Your task to perform on an android device: change your default location settings in chrome Image 0: 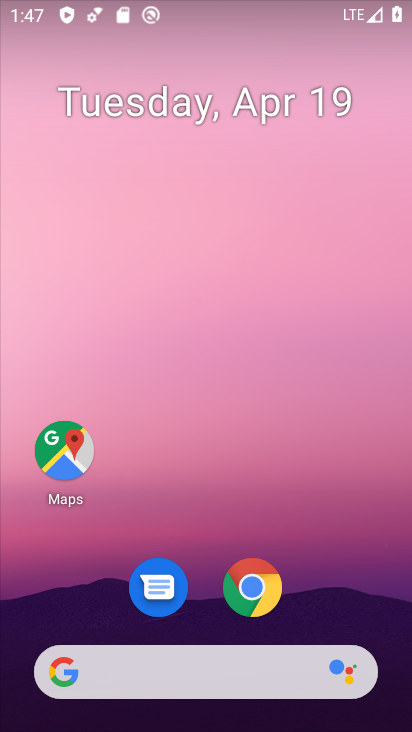
Step 0: click (264, 590)
Your task to perform on an android device: change your default location settings in chrome Image 1: 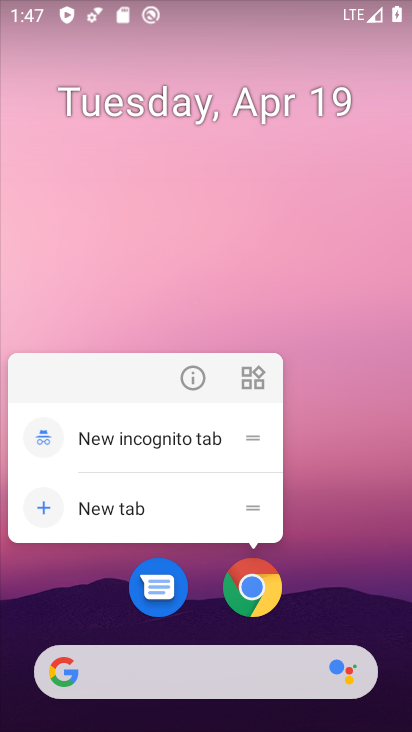
Step 1: click (250, 589)
Your task to perform on an android device: change your default location settings in chrome Image 2: 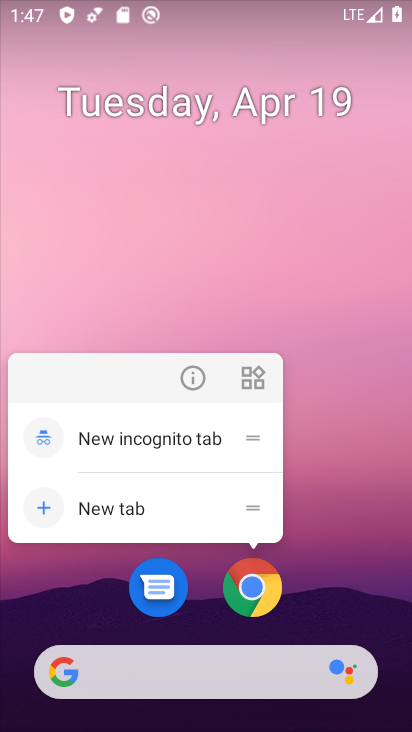
Step 2: click (301, 341)
Your task to perform on an android device: change your default location settings in chrome Image 3: 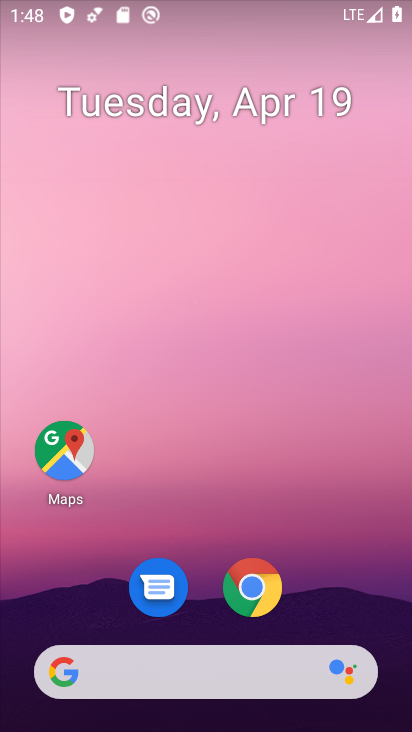
Step 3: drag from (355, 516) to (230, 3)
Your task to perform on an android device: change your default location settings in chrome Image 4: 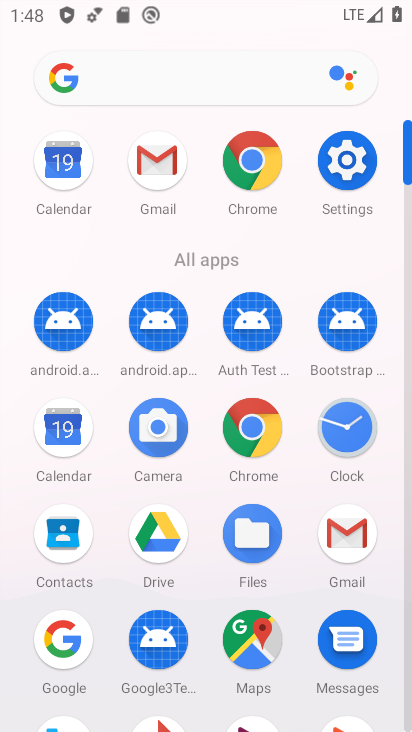
Step 4: click (243, 170)
Your task to perform on an android device: change your default location settings in chrome Image 5: 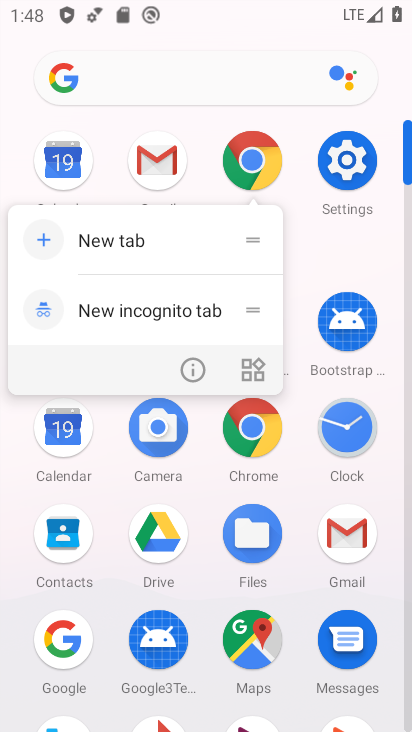
Step 5: click (254, 162)
Your task to perform on an android device: change your default location settings in chrome Image 6: 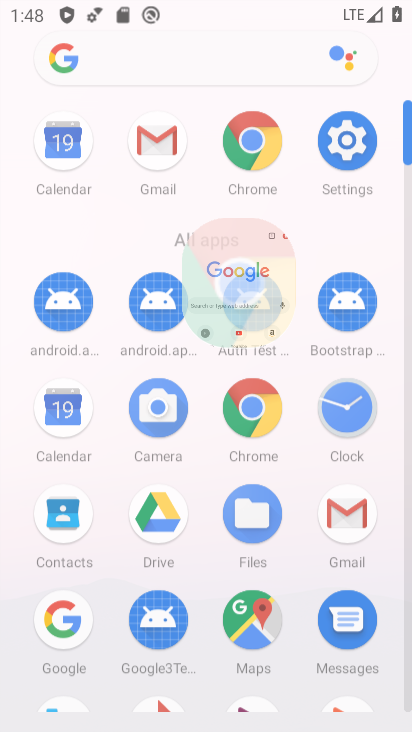
Step 6: click (254, 162)
Your task to perform on an android device: change your default location settings in chrome Image 7: 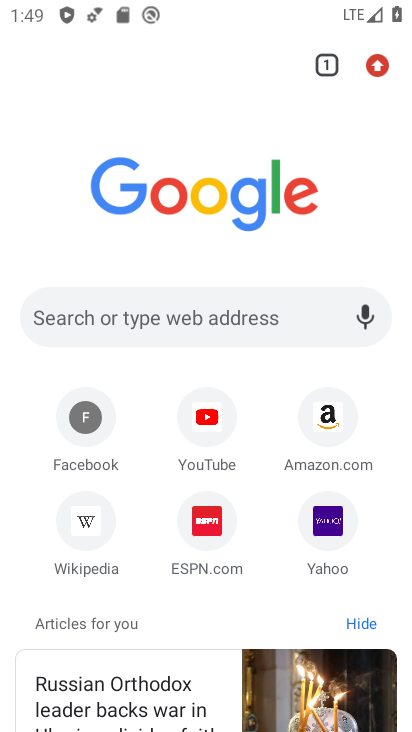
Step 7: click (377, 70)
Your task to perform on an android device: change your default location settings in chrome Image 8: 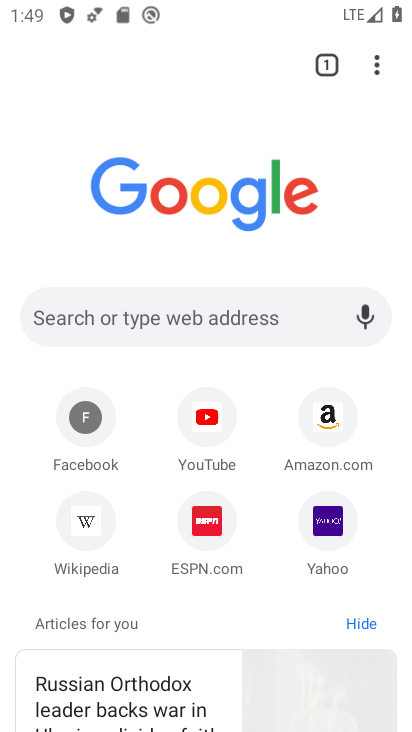
Step 8: click (377, 70)
Your task to perform on an android device: change your default location settings in chrome Image 9: 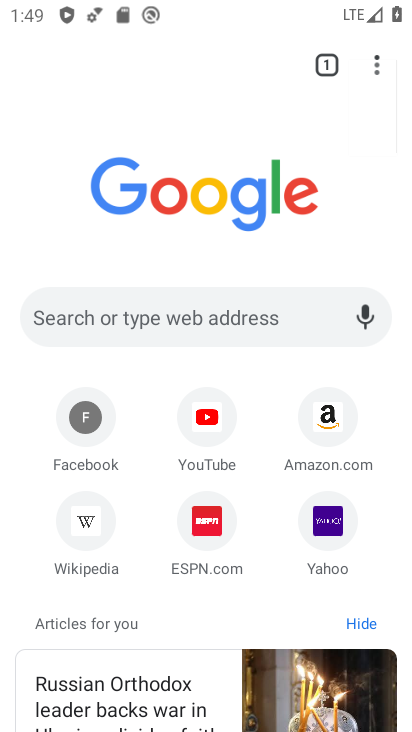
Step 9: click (377, 70)
Your task to perform on an android device: change your default location settings in chrome Image 10: 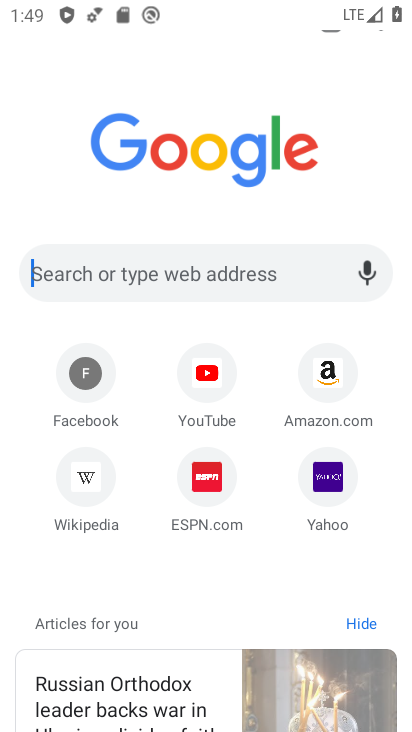
Step 10: click (377, 70)
Your task to perform on an android device: change your default location settings in chrome Image 11: 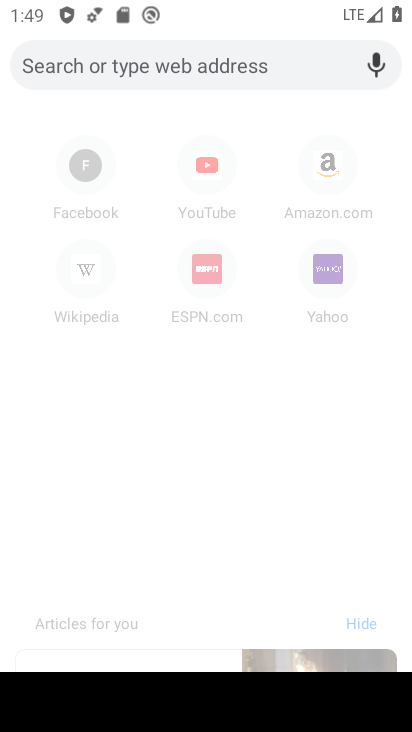
Step 11: click (377, 70)
Your task to perform on an android device: change your default location settings in chrome Image 12: 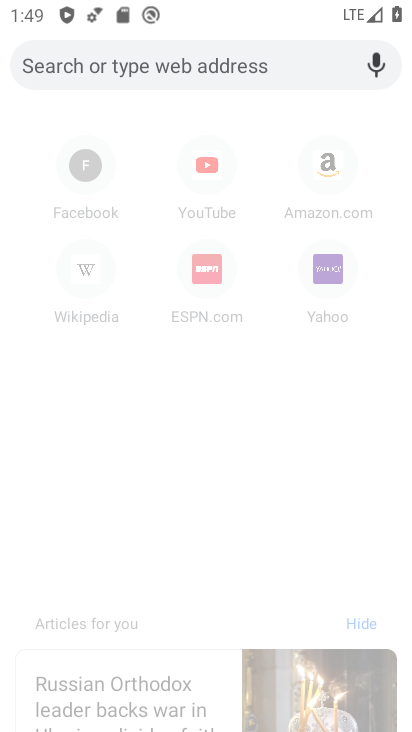
Step 12: click (377, 70)
Your task to perform on an android device: change your default location settings in chrome Image 13: 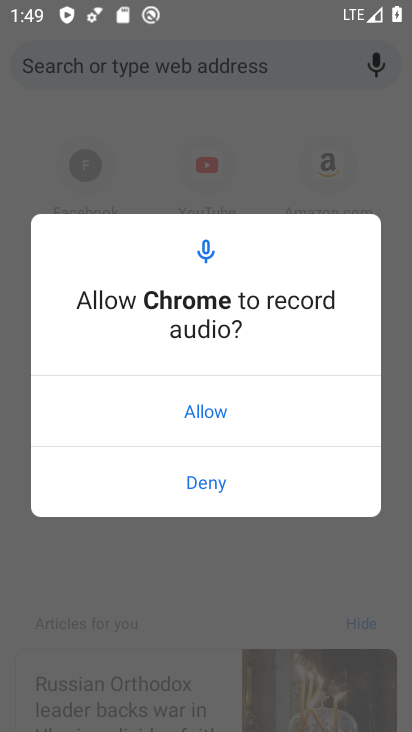
Step 13: click (204, 412)
Your task to perform on an android device: change your default location settings in chrome Image 14: 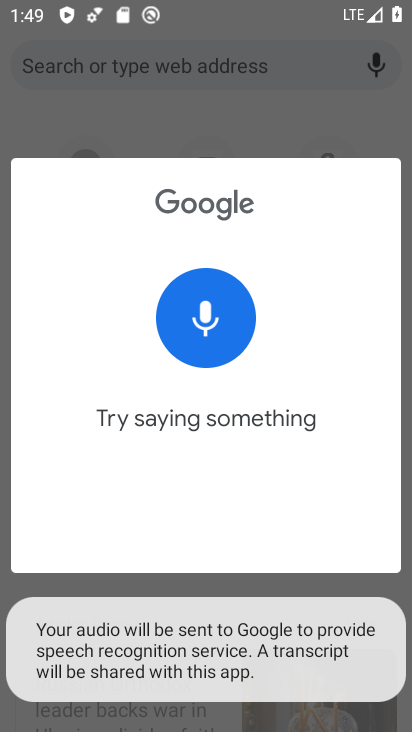
Step 14: click (203, 339)
Your task to perform on an android device: change your default location settings in chrome Image 15: 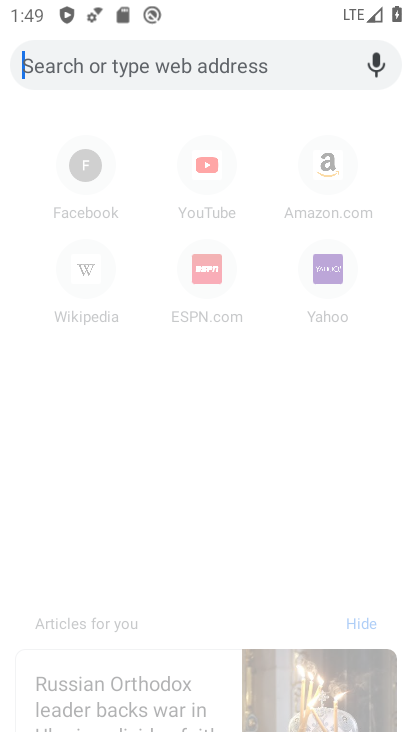
Step 15: click (273, 84)
Your task to perform on an android device: change your default location settings in chrome Image 16: 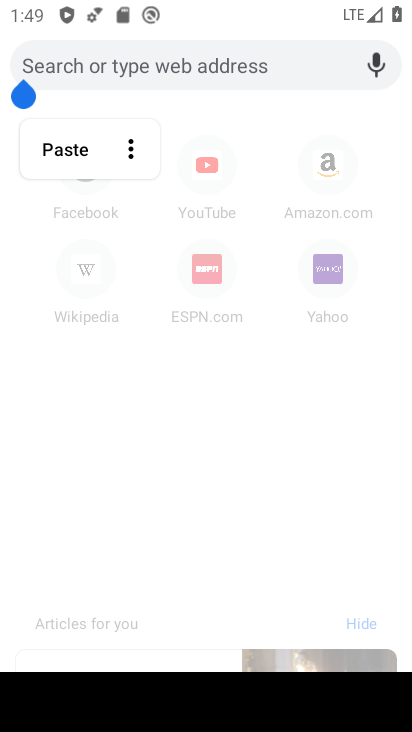
Step 16: click (55, 65)
Your task to perform on an android device: change your default location settings in chrome Image 17: 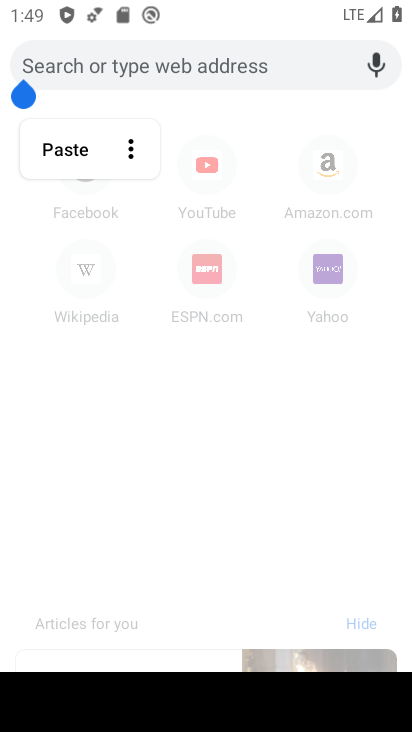
Step 17: click (55, 63)
Your task to perform on an android device: change your default location settings in chrome Image 18: 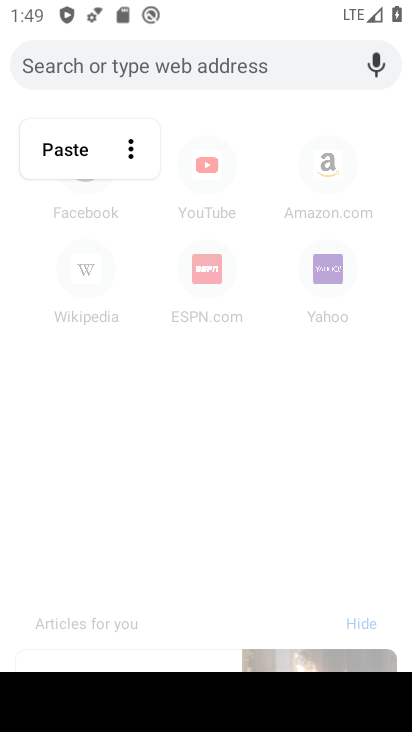
Step 18: click (50, 65)
Your task to perform on an android device: change your default location settings in chrome Image 19: 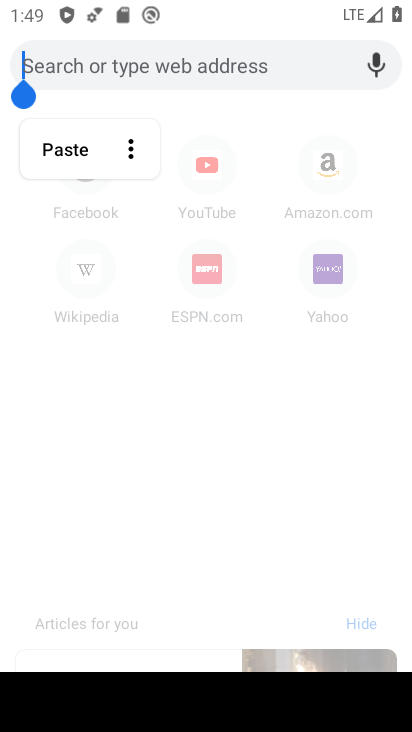
Step 19: click (50, 65)
Your task to perform on an android device: change your default location settings in chrome Image 20: 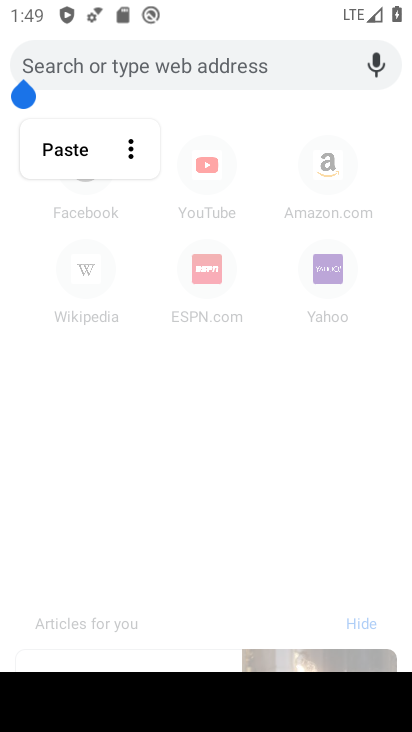
Step 20: click (50, 65)
Your task to perform on an android device: change your default location settings in chrome Image 21: 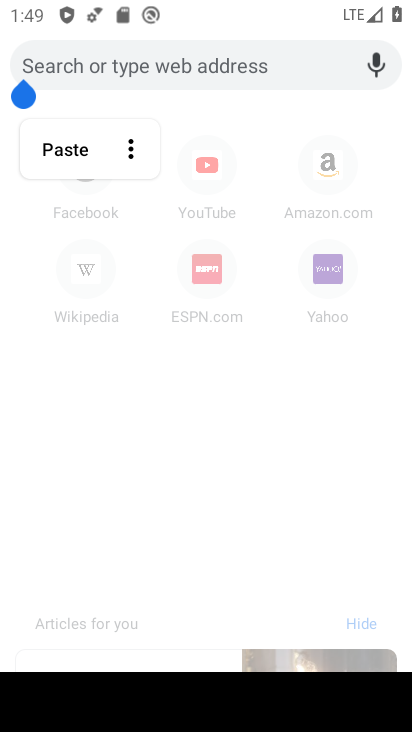
Step 21: click (56, 65)
Your task to perform on an android device: change your default location settings in chrome Image 22: 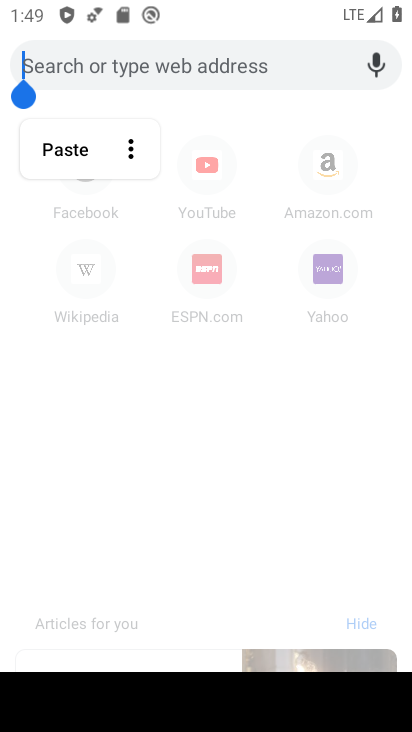
Step 22: click (34, 60)
Your task to perform on an android device: change your default location settings in chrome Image 23: 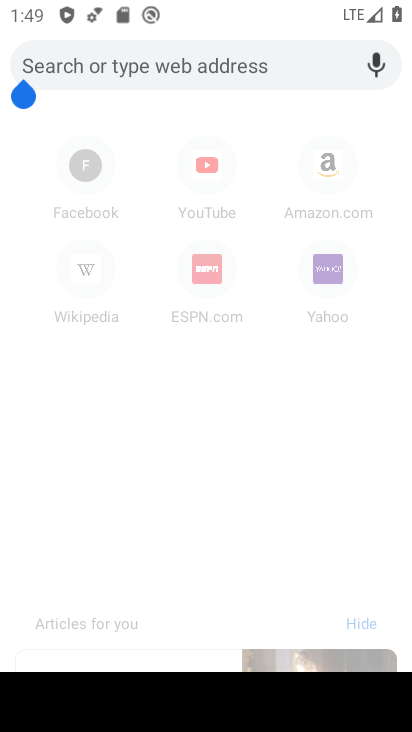
Step 23: click (41, 51)
Your task to perform on an android device: change your default location settings in chrome Image 24: 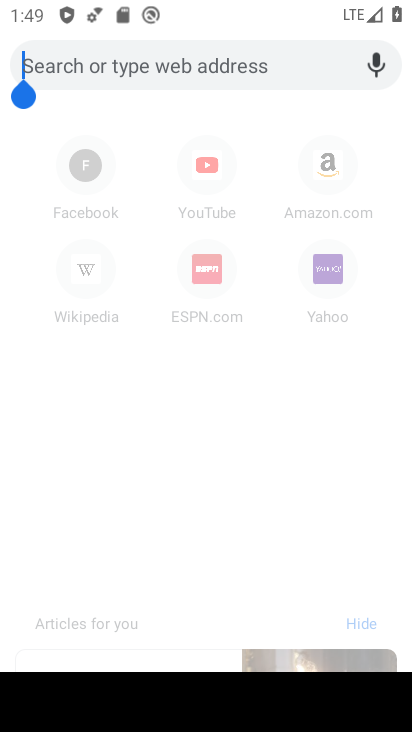
Step 24: click (39, 58)
Your task to perform on an android device: change your default location settings in chrome Image 25: 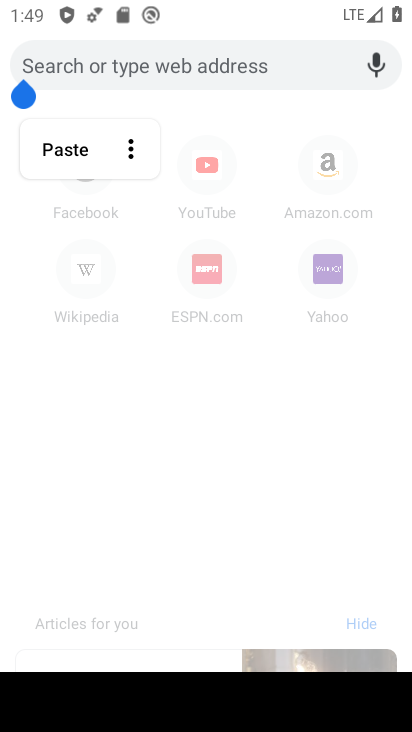
Step 25: click (45, 48)
Your task to perform on an android device: change your default location settings in chrome Image 26: 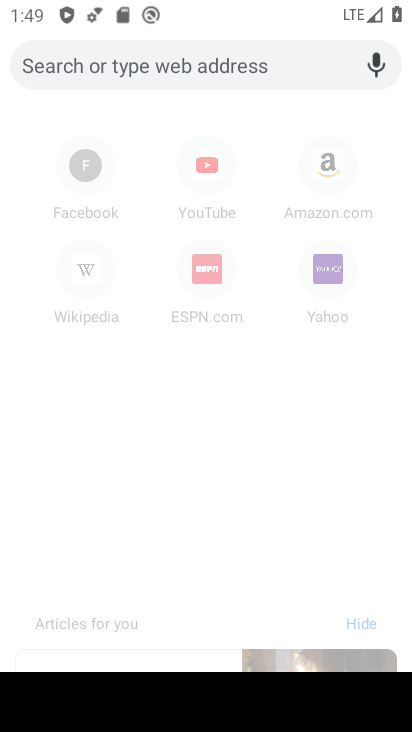
Step 26: click (45, 48)
Your task to perform on an android device: change your default location settings in chrome Image 27: 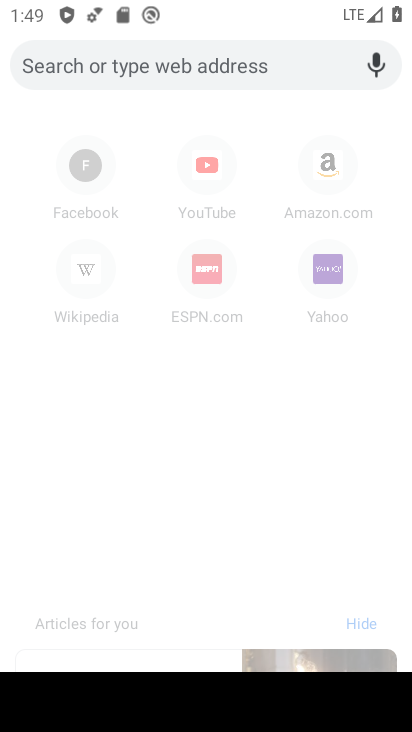
Step 27: click (61, 67)
Your task to perform on an android device: change your default location settings in chrome Image 28: 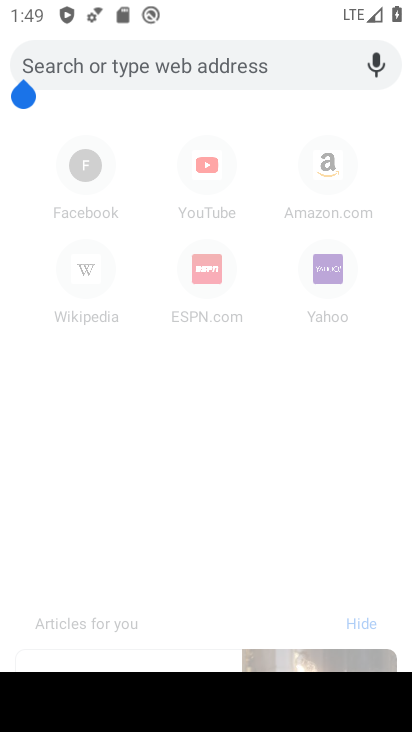
Step 28: click (61, 67)
Your task to perform on an android device: change your default location settings in chrome Image 29: 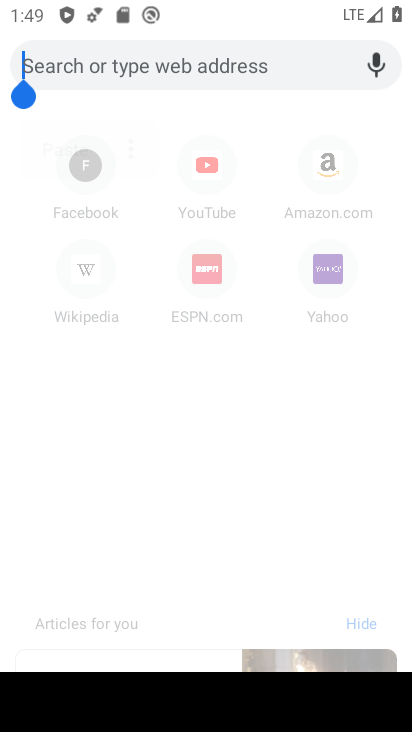
Step 29: click (61, 67)
Your task to perform on an android device: change your default location settings in chrome Image 30: 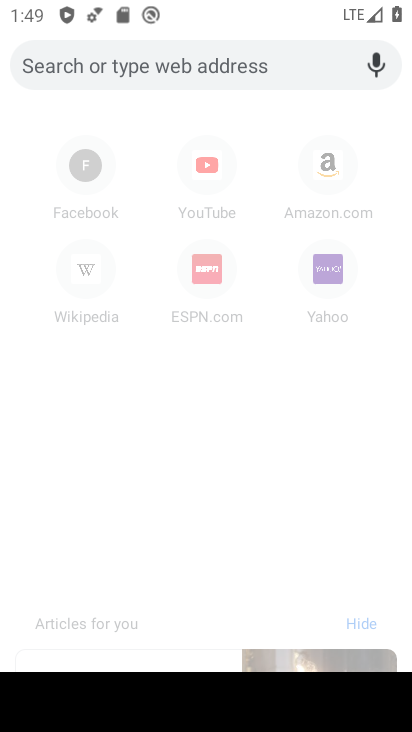
Step 30: click (61, 67)
Your task to perform on an android device: change your default location settings in chrome Image 31: 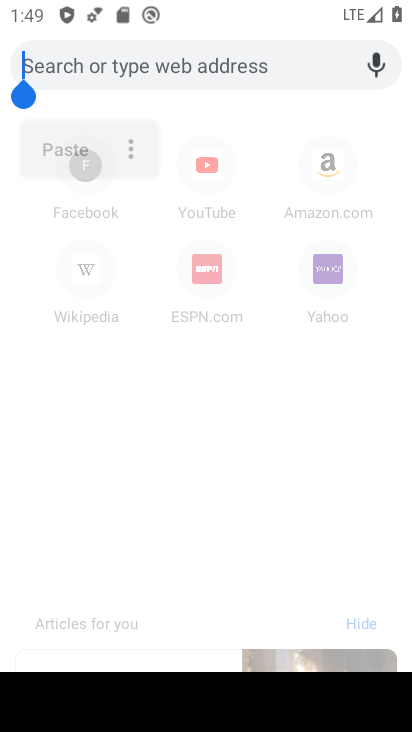
Step 31: click (61, 67)
Your task to perform on an android device: change your default location settings in chrome Image 32: 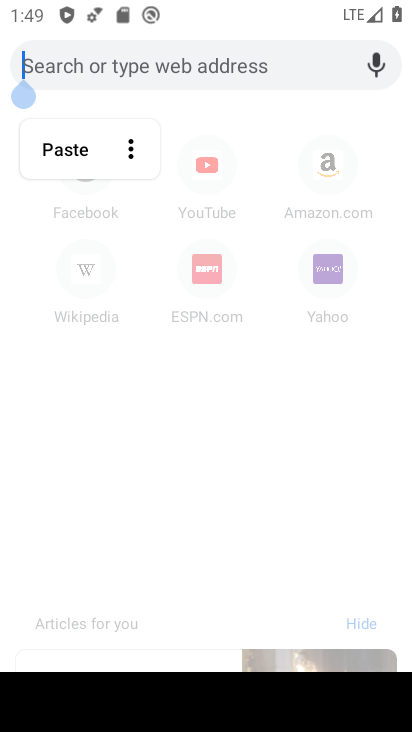
Step 32: click (61, 67)
Your task to perform on an android device: change your default location settings in chrome Image 33: 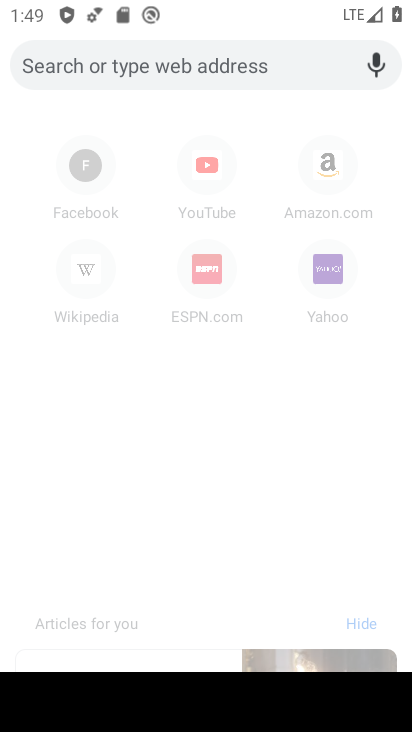
Step 33: click (61, 67)
Your task to perform on an android device: change your default location settings in chrome Image 34: 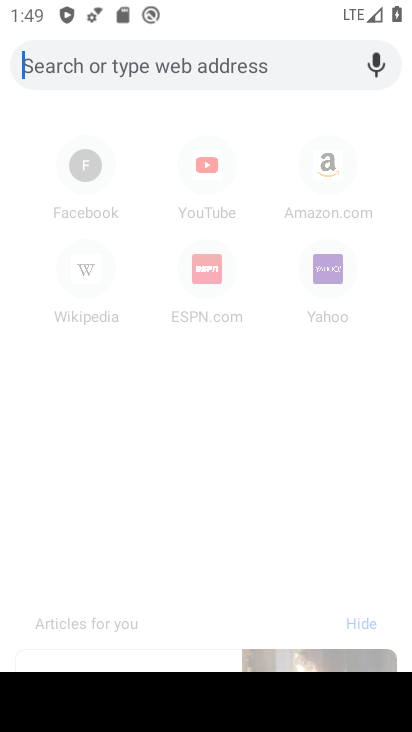
Step 34: click (61, 67)
Your task to perform on an android device: change your default location settings in chrome Image 35: 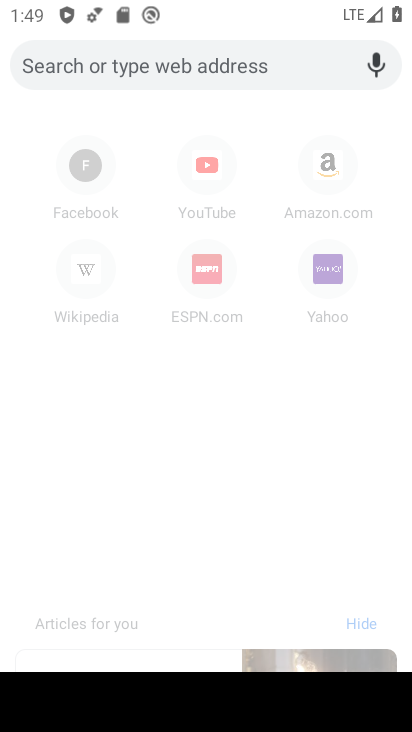
Step 35: click (61, 67)
Your task to perform on an android device: change your default location settings in chrome Image 36: 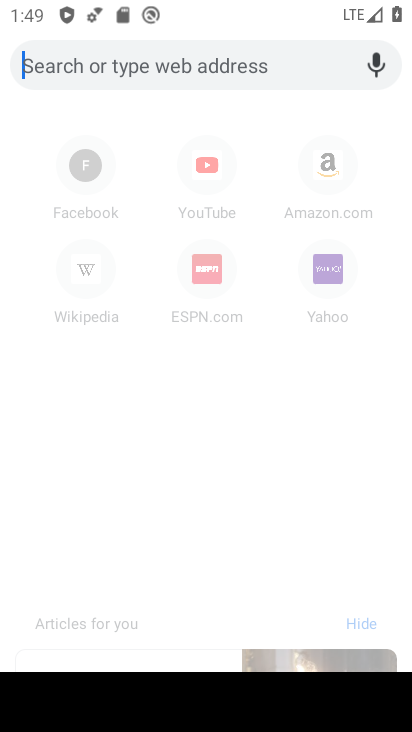
Step 36: click (61, 67)
Your task to perform on an android device: change your default location settings in chrome Image 37: 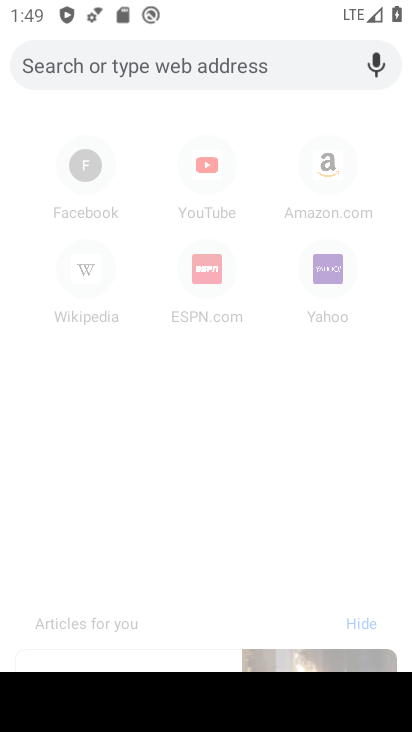
Step 37: click (62, 68)
Your task to perform on an android device: change your default location settings in chrome Image 38: 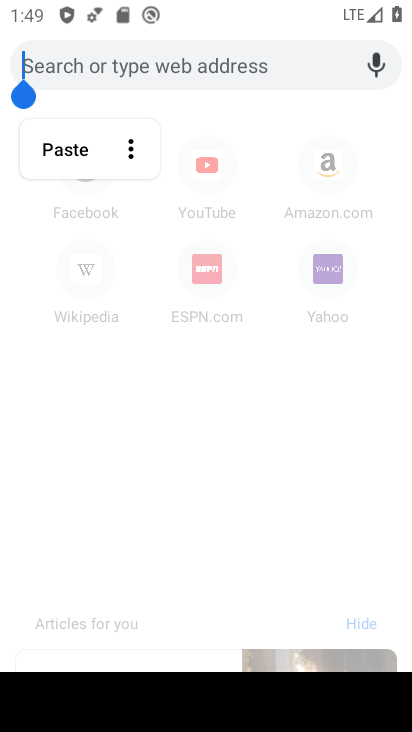
Step 38: click (62, 68)
Your task to perform on an android device: change your default location settings in chrome Image 39: 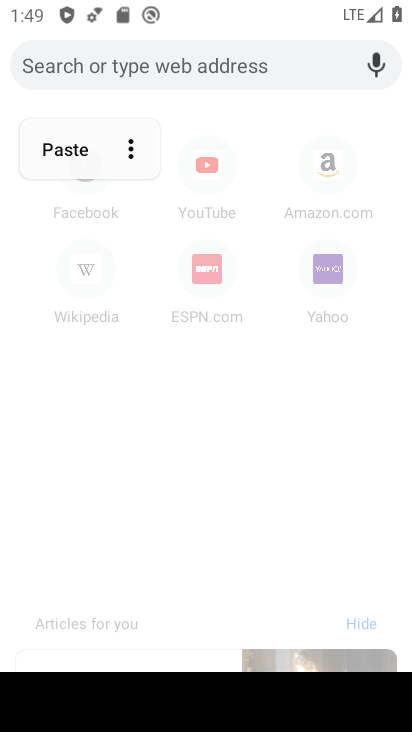
Step 39: click (62, 68)
Your task to perform on an android device: change your default location settings in chrome Image 40: 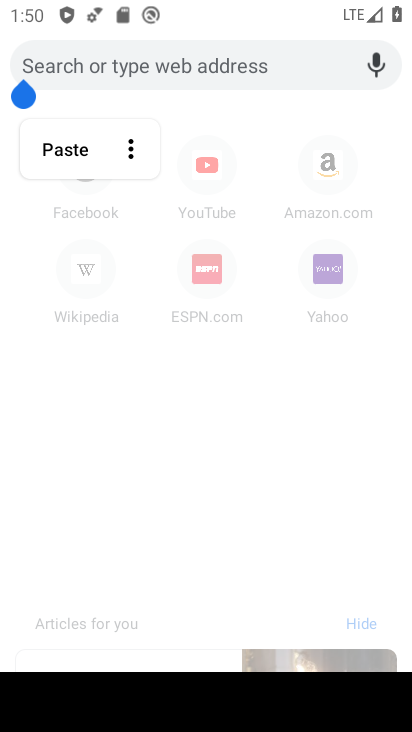
Step 40: click (56, 60)
Your task to perform on an android device: change your default location settings in chrome Image 41: 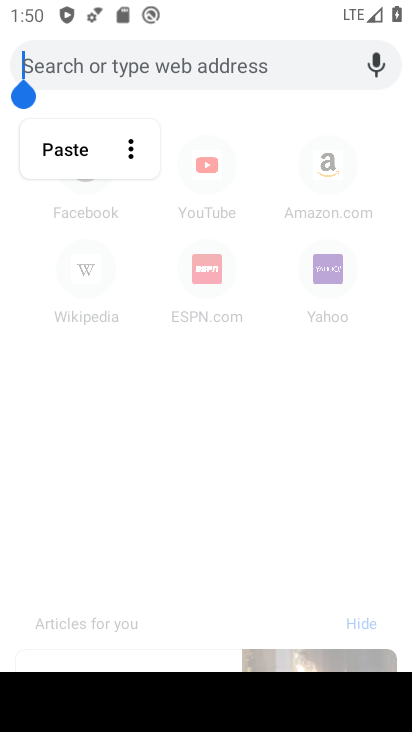
Step 41: click (49, 67)
Your task to perform on an android device: change your default location settings in chrome Image 42: 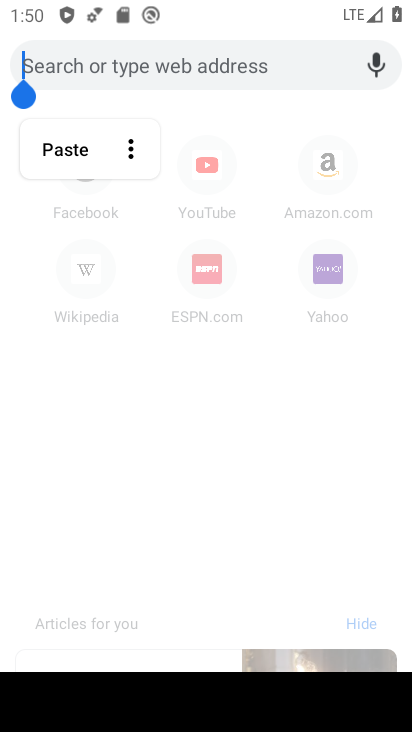
Step 42: click (49, 67)
Your task to perform on an android device: change your default location settings in chrome Image 43: 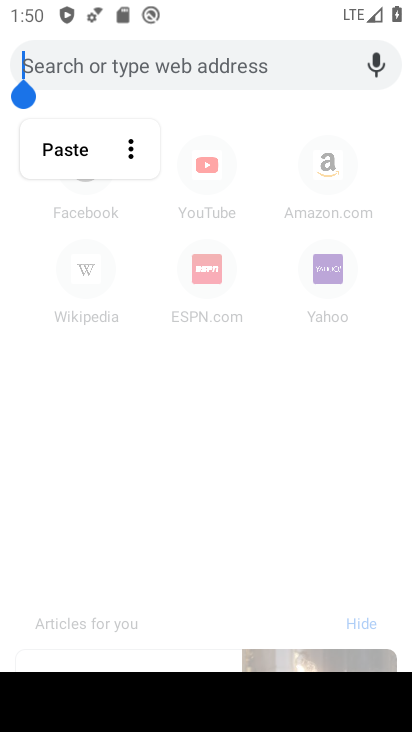
Step 43: click (313, 75)
Your task to perform on an android device: change your default location settings in chrome Image 44: 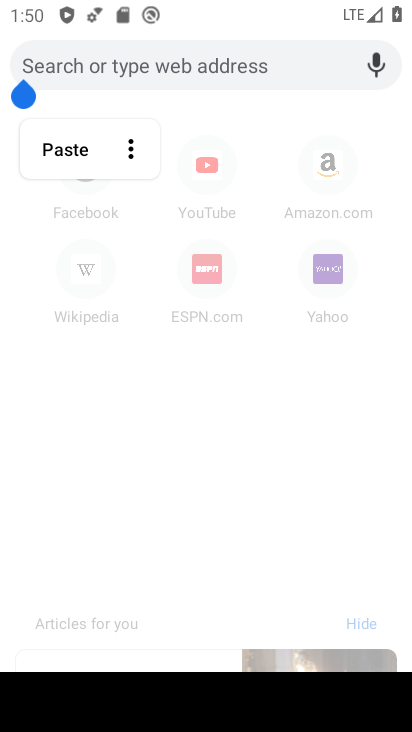
Step 44: click (313, 65)
Your task to perform on an android device: change your default location settings in chrome Image 45: 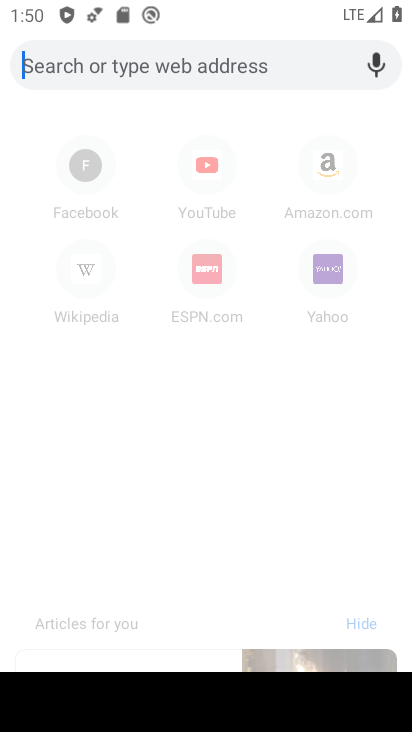
Step 45: press home button
Your task to perform on an android device: change your default location settings in chrome Image 46: 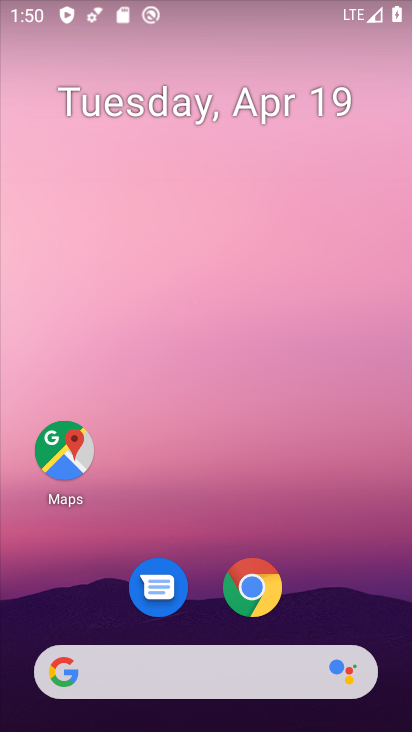
Step 46: click (166, 138)
Your task to perform on an android device: change your default location settings in chrome Image 47: 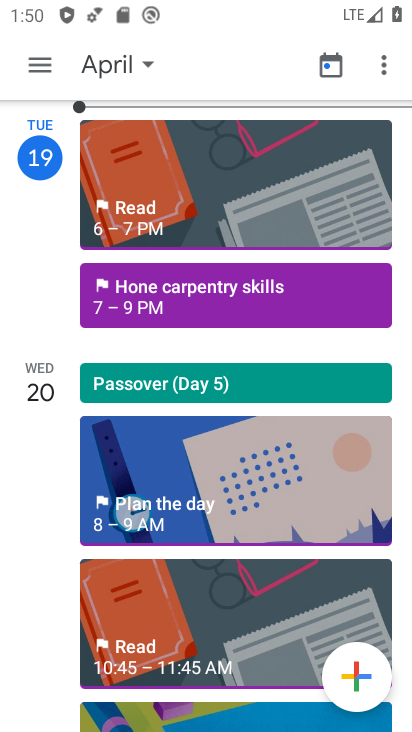
Step 47: click (385, 65)
Your task to perform on an android device: change your default location settings in chrome Image 48: 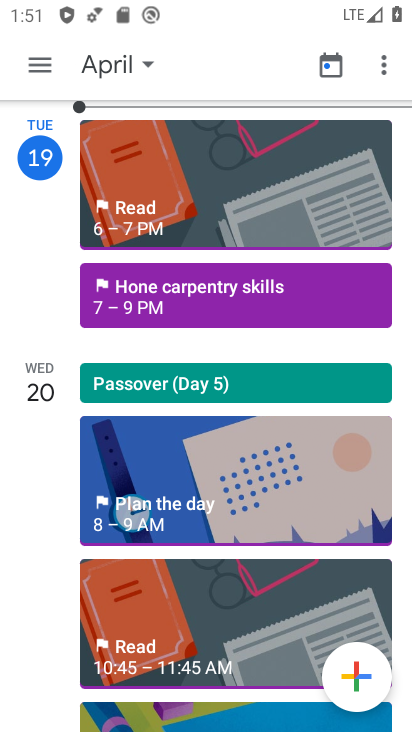
Step 48: task complete